Your task to perform on an android device: find which apps use the phone's location Image 0: 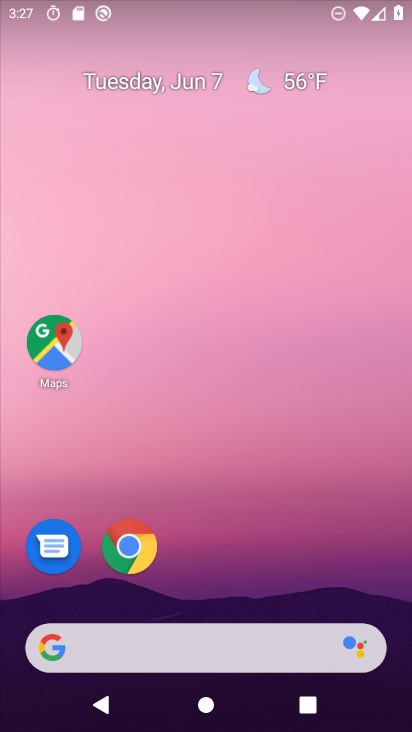
Step 0: drag from (243, 576) to (223, 47)
Your task to perform on an android device: find which apps use the phone's location Image 1: 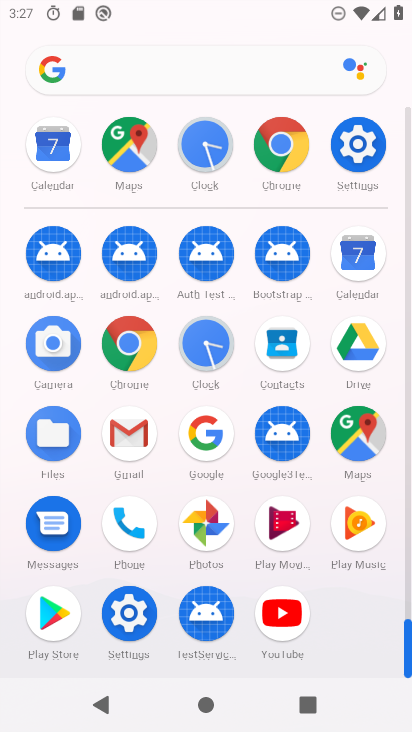
Step 1: drag from (21, 564) to (18, 184)
Your task to perform on an android device: find which apps use the phone's location Image 2: 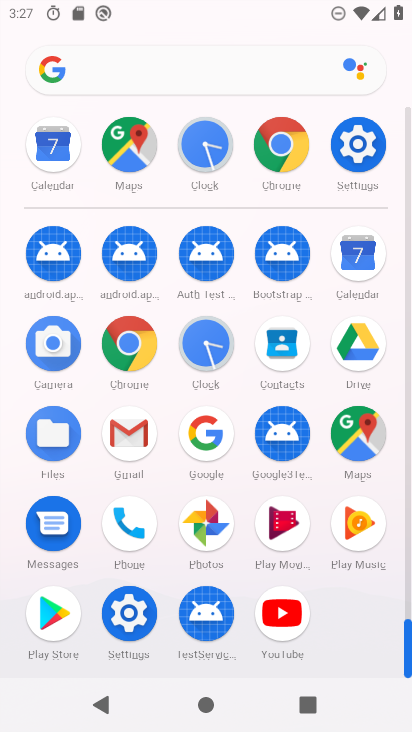
Step 2: click (127, 613)
Your task to perform on an android device: find which apps use the phone's location Image 3: 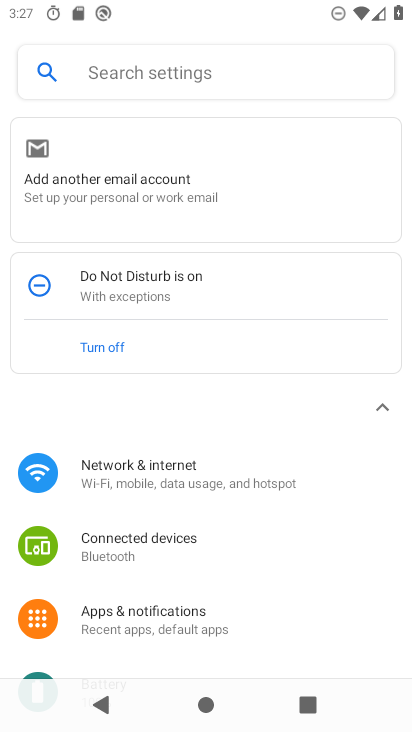
Step 3: drag from (279, 577) to (309, 151)
Your task to perform on an android device: find which apps use the phone's location Image 4: 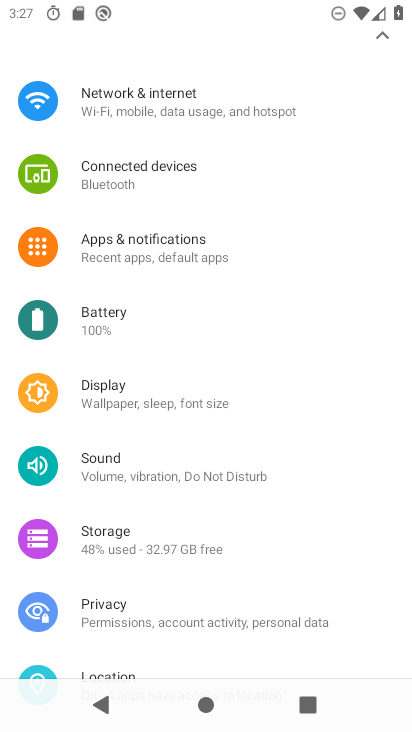
Step 4: drag from (262, 547) to (286, 193)
Your task to perform on an android device: find which apps use the phone's location Image 5: 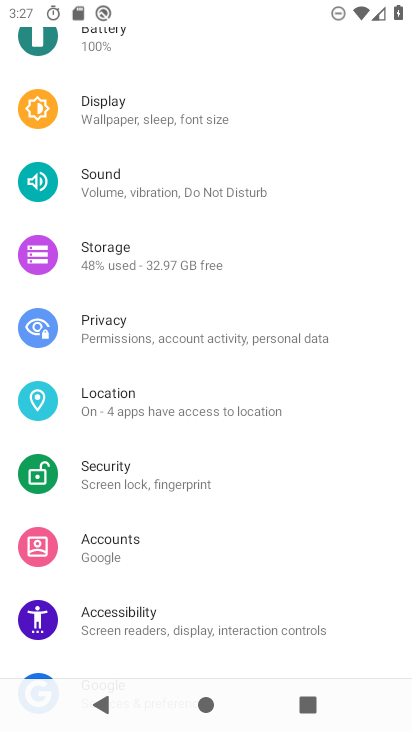
Step 5: click (171, 397)
Your task to perform on an android device: find which apps use the phone's location Image 6: 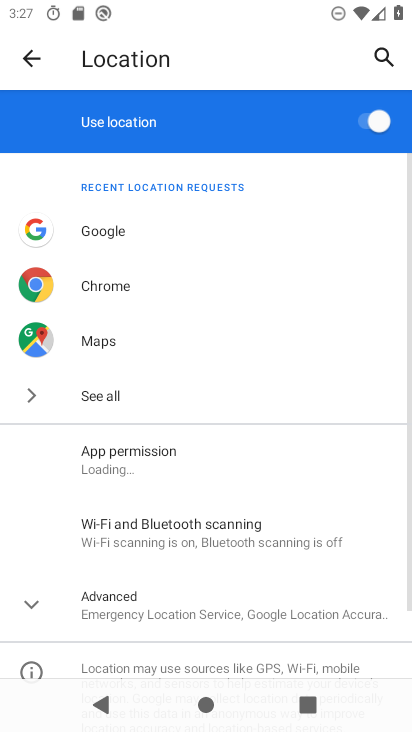
Step 6: click (137, 453)
Your task to perform on an android device: find which apps use the phone's location Image 7: 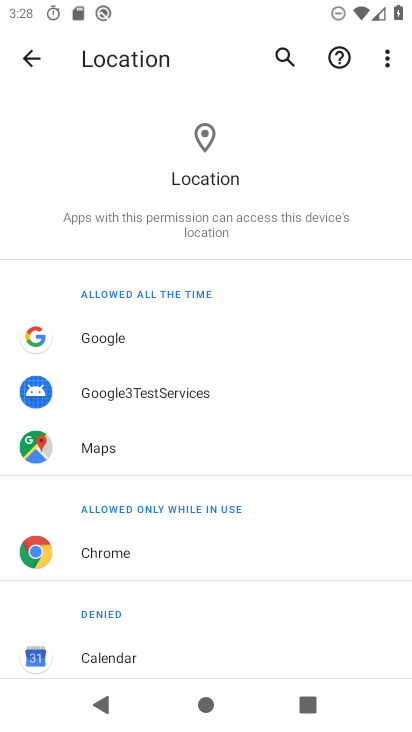
Step 7: task complete